Your task to perform on an android device: Open accessibility settings Image 0: 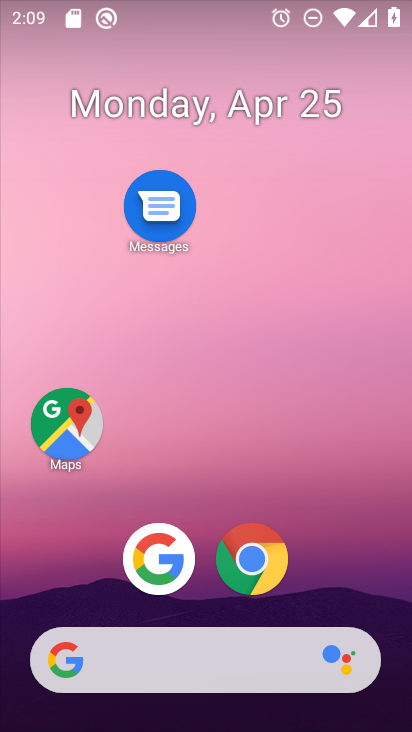
Step 0: drag from (200, 589) to (246, 165)
Your task to perform on an android device: Open accessibility settings Image 1: 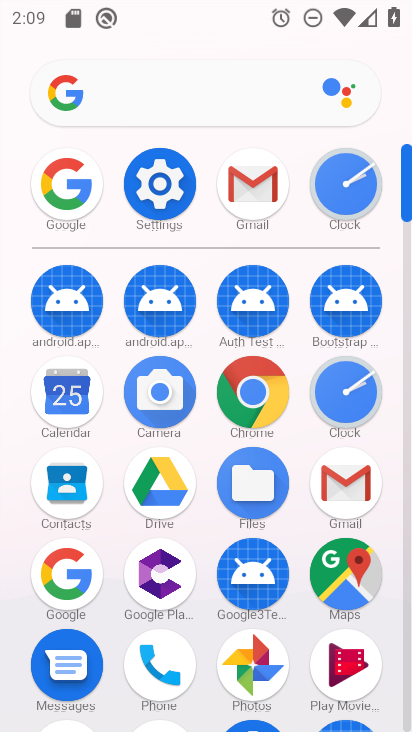
Step 1: click (159, 184)
Your task to perform on an android device: Open accessibility settings Image 2: 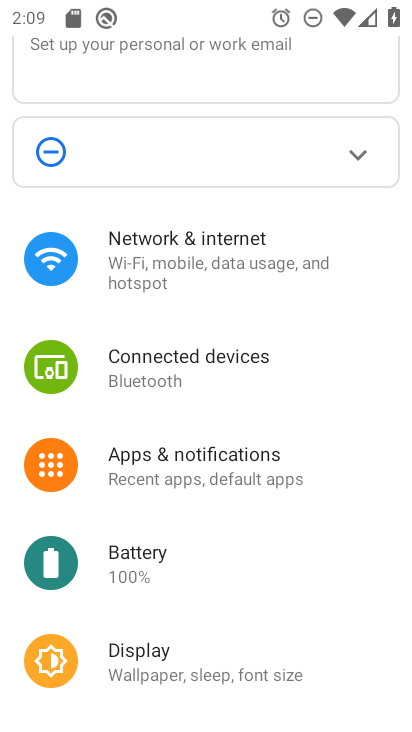
Step 2: drag from (223, 581) to (258, 134)
Your task to perform on an android device: Open accessibility settings Image 3: 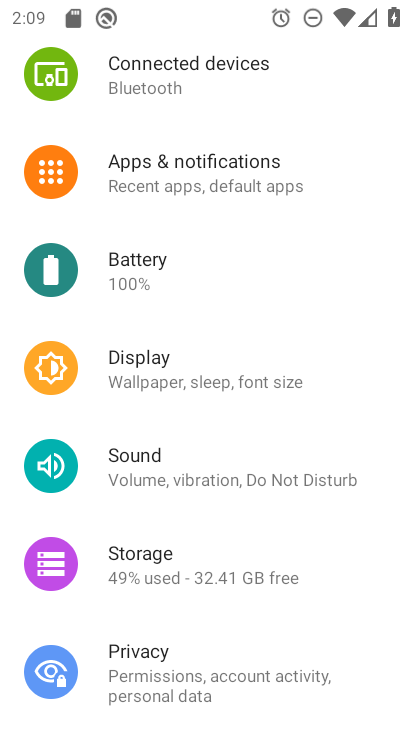
Step 3: drag from (261, 609) to (298, 122)
Your task to perform on an android device: Open accessibility settings Image 4: 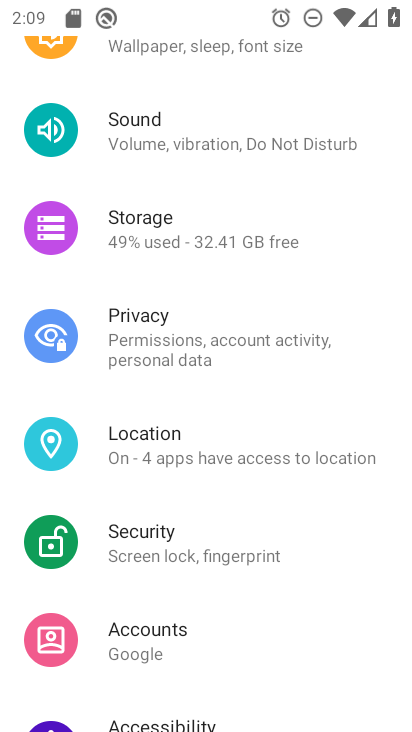
Step 4: drag from (188, 629) to (200, 446)
Your task to perform on an android device: Open accessibility settings Image 5: 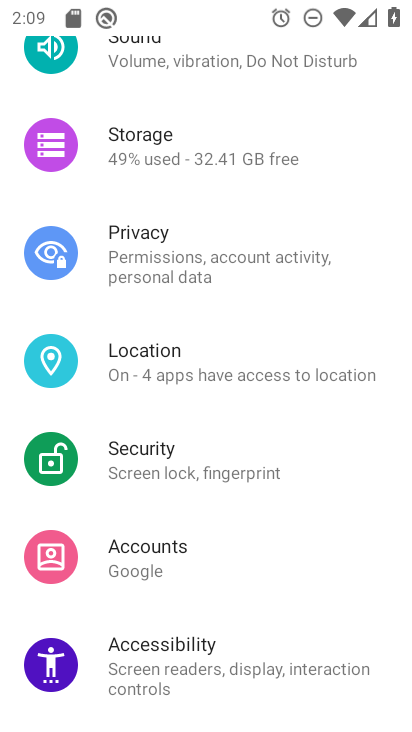
Step 5: click (141, 675)
Your task to perform on an android device: Open accessibility settings Image 6: 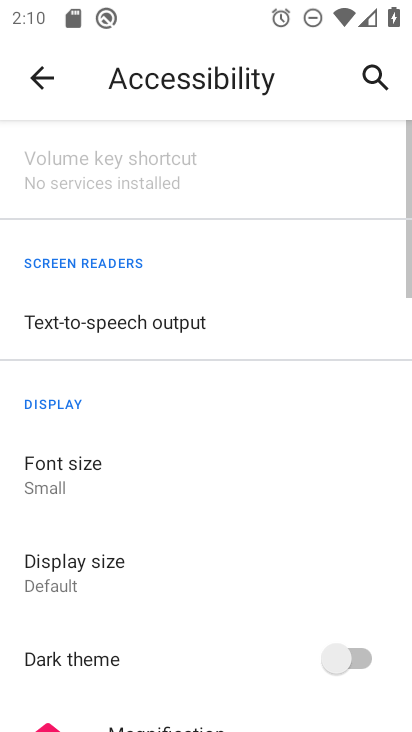
Step 6: task complete